Your task to perform on an android device: turn smart compose on in the gmail app Image 0: 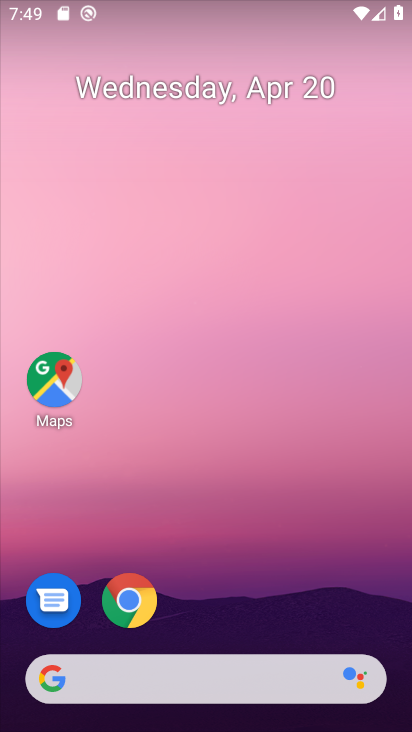
Step 0: drag from (193, 724) to (202, 152)
Your task to perform on an android device: turn smart compose on in the gmail app Image 1: 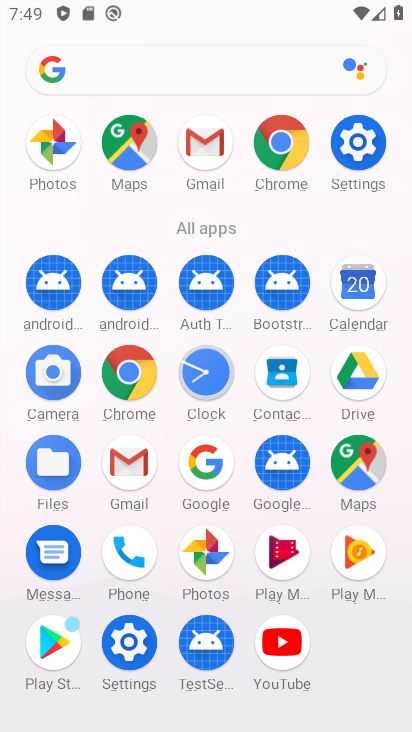
Step 1: click (122, 459)
Your task to perform on an android device: turn smart compose on in the gmail app Image 2: 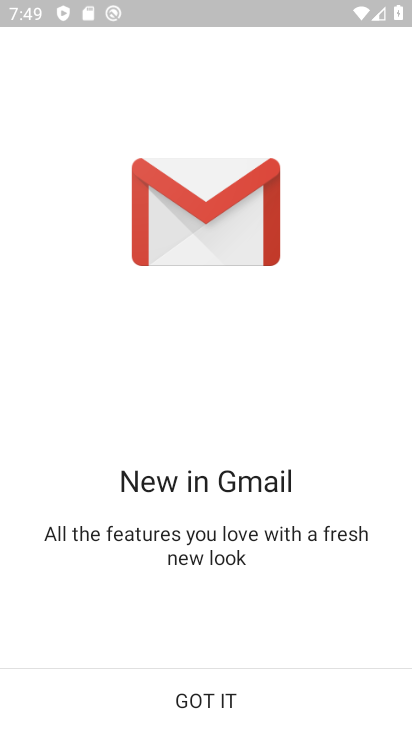
Step 2: click (192, 700)
Your task to perform on an android device: turn smart compose on in the gmail app Image 3: 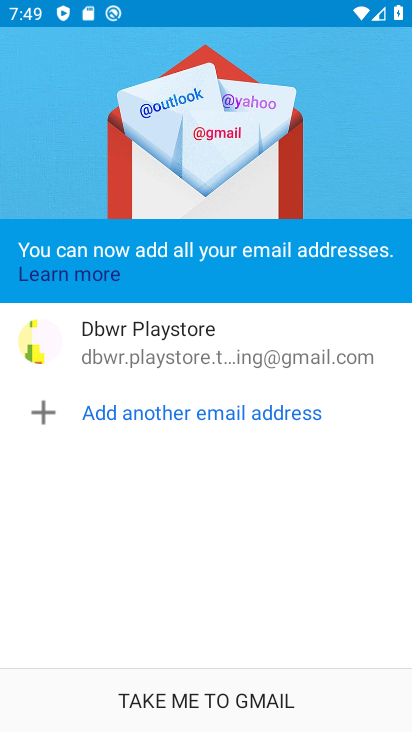
Step 3: click (192, 700)
Your task to perform on an android device: turn smart compose on in the gmail app Image 4: 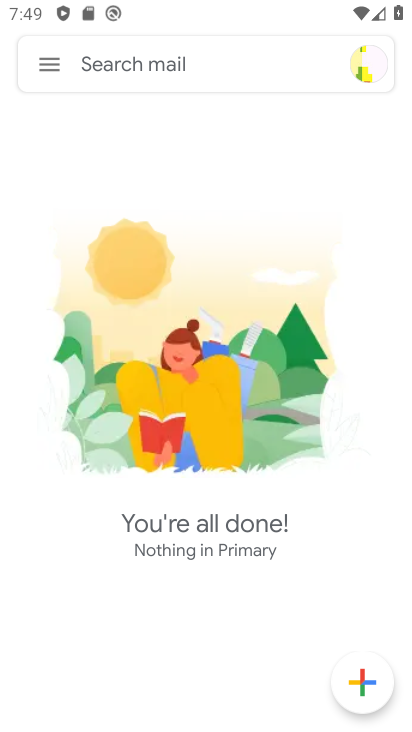
Step 4: click (51, 68)
Your task to perform on an android device: turn smart compose on in the gmail app Image 5: 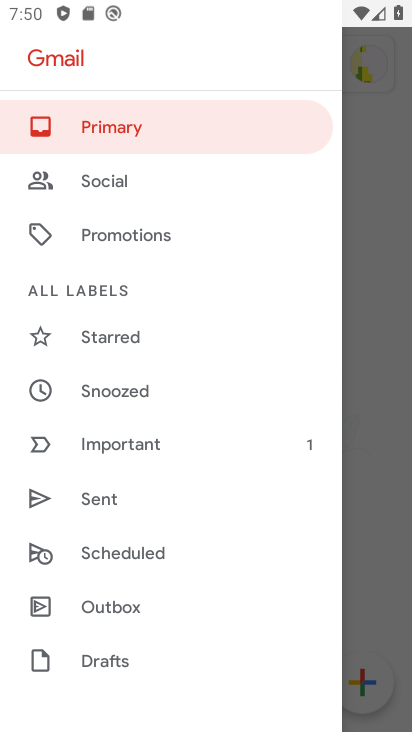
Step 5: drag from (143, 642) to (161, 220)
Your task to perform on an android device: turn smart compose on in the gmail app Image 6: 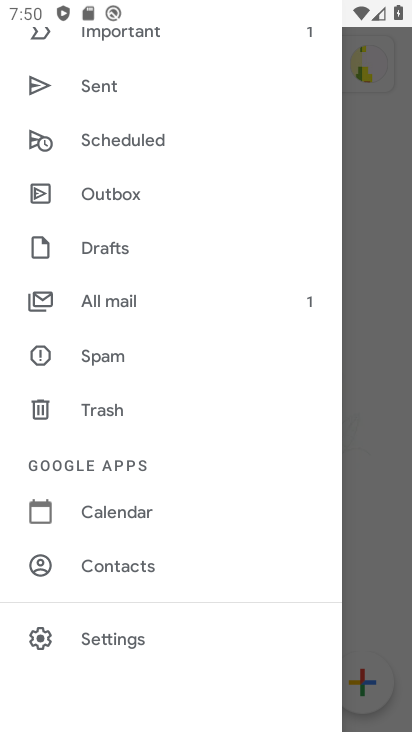
Step 6: click (120, 638)
Your task to perform on an android device: turn smart compose on in the gmail app Image 7: 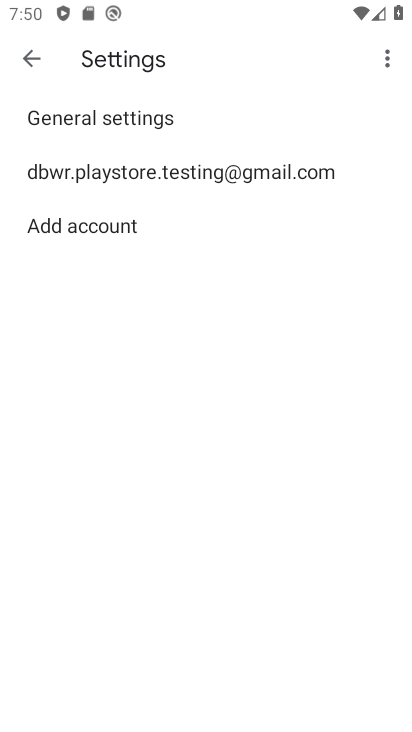
Step 7: click (219, 167)
Your task to perform on an android device: turn smart compose on in the gmail app Image 8: 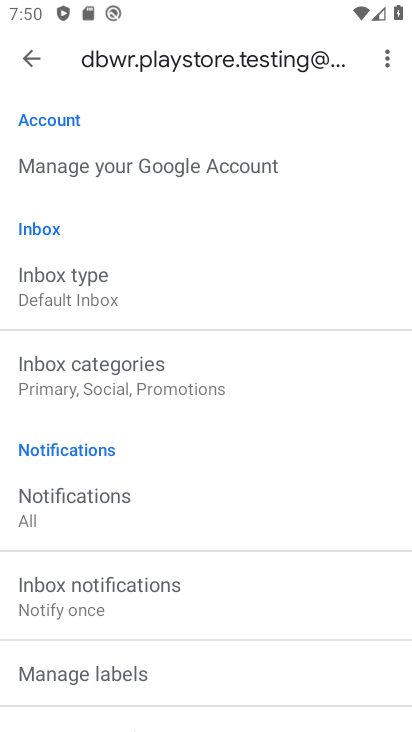
Step 8: task complete